Your task to perform on an android device: Open Reddit.com Image 0: 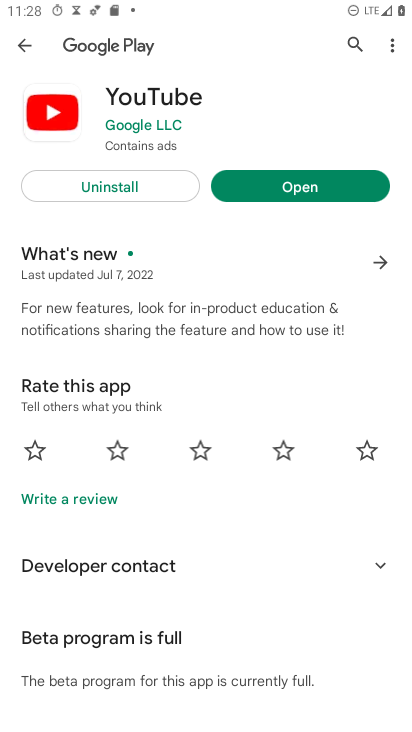
Step 0: press home button
Your task to perform on an android device: Open Reddit.com Image 1: 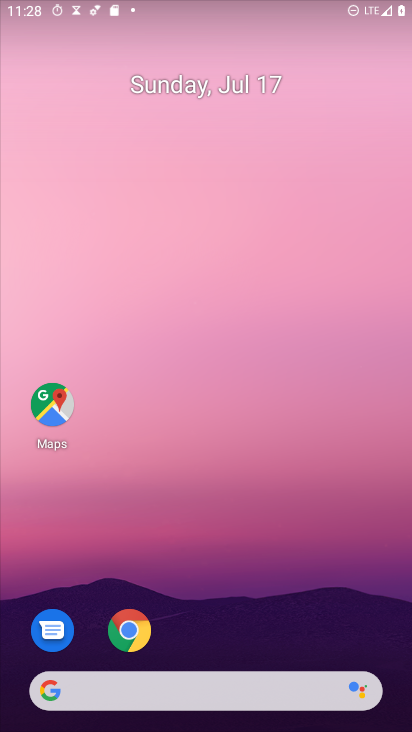
Step 1: drag from (227, 681) to (285, 100)
Your task to perform on an android device: Open Reddit.com Image 2: 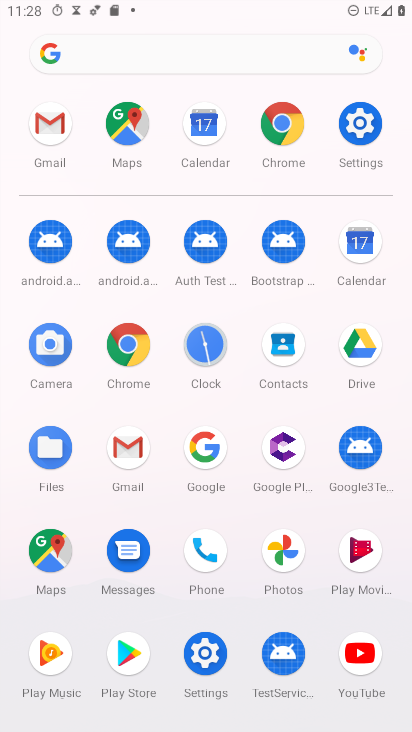
Step 2: click (148, 339)
Your task to perform on an android device: Open Reddit.com Image 3: 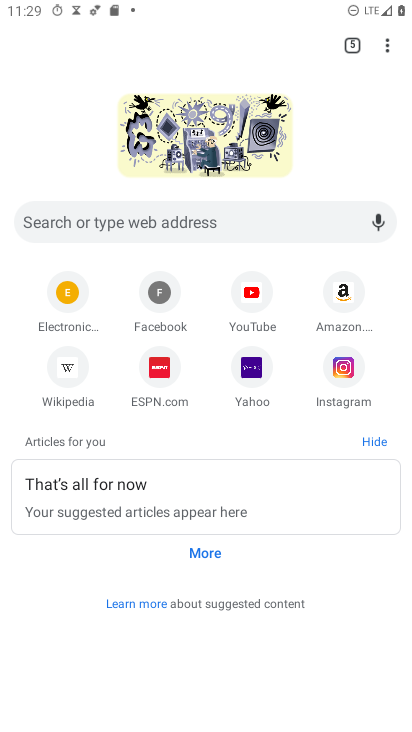
Step 3: click (203, 224)
Your task to perform on an android device: Open Reddit.com Image 4: 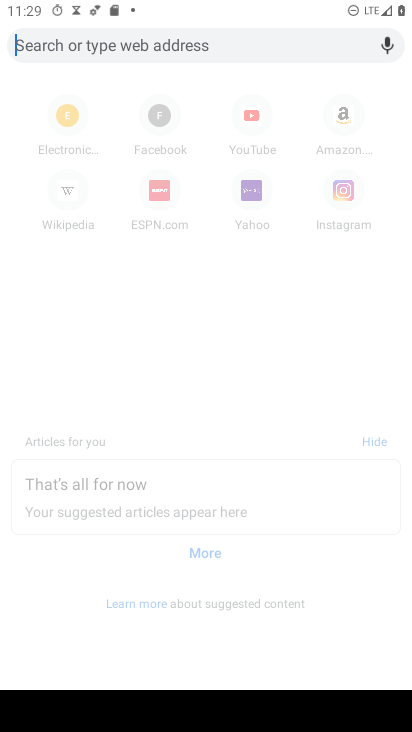
Step 4: type "reddit.com"
Your task to perform on an android device: Open Reddit.com Image 5: 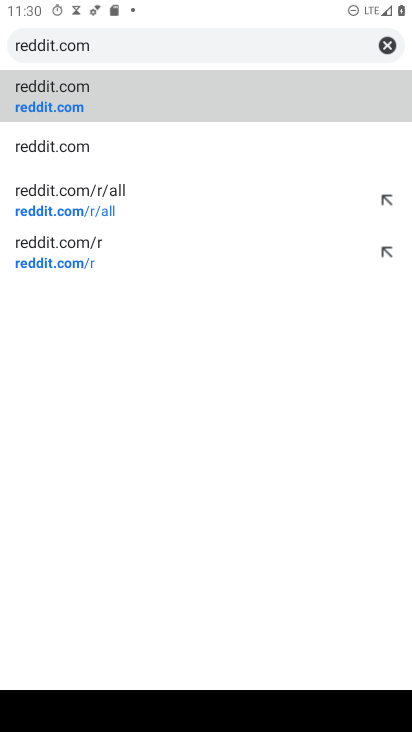
Step 5: click (103, 84)
Your task to perform on an android device: Open Reddit.com Image 6: 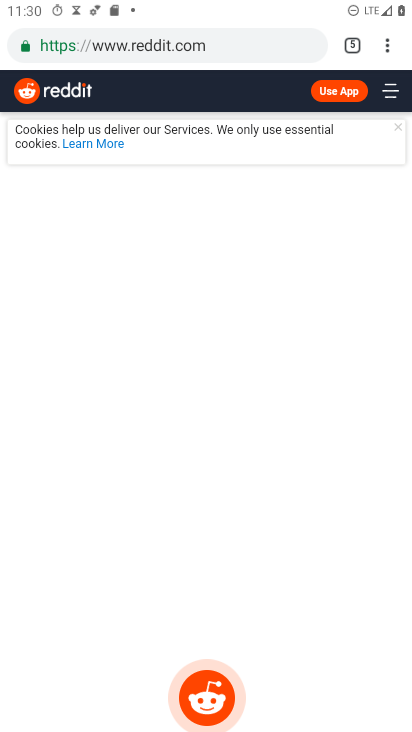
Step 6: task complete